Your task to perform on an android device: set the timer Image 0: 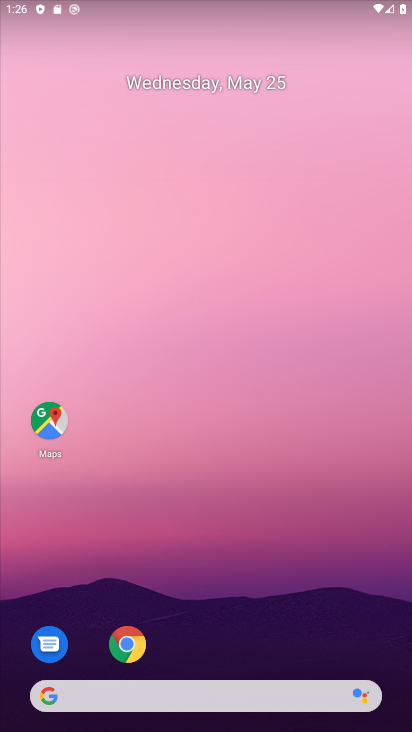
Step 0: drag from (180, 639) to (158, 193)
Your task to perform on an android device: set the timer Image 1: 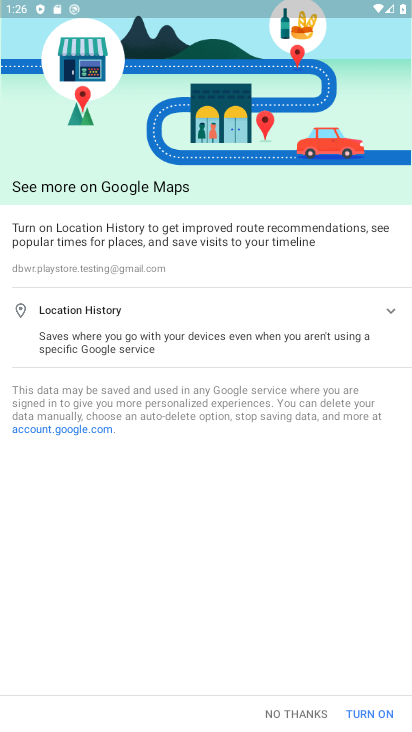
Step 1: click (299, 722)
Your task to perform on an android device: set the timer Image 2: 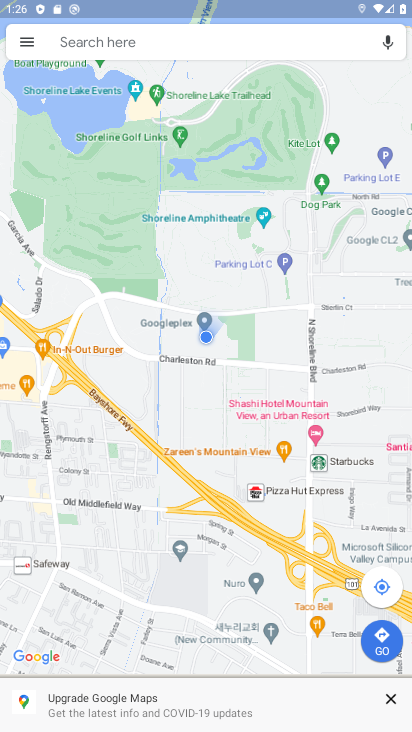
Step 2: press home button
Your task to perform on an android device: set the timer Image 3: 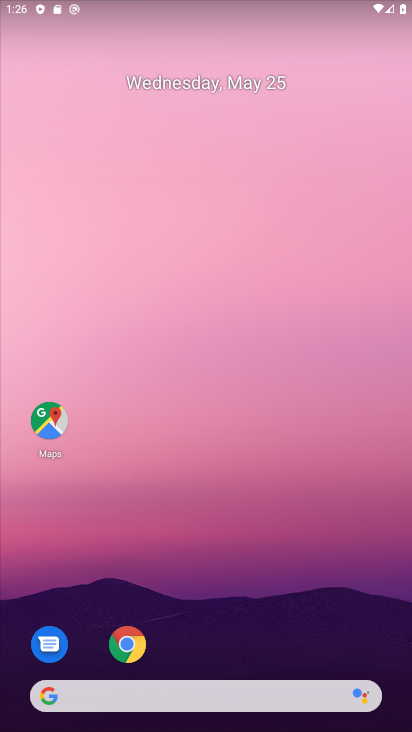
Step 3: drag from (257, 595) to (195, 123)
Your task to perform on an android device: set the timer Image 4: 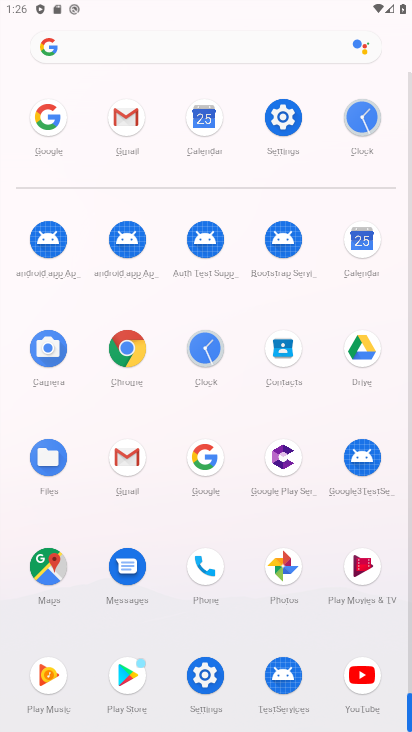
Step 4: click (203, 354)
Your task to perform on an android device: set the timer Image 5: 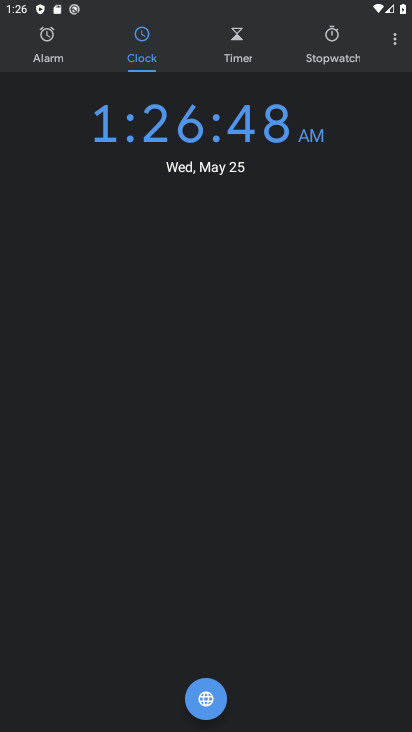
Step 5: click (224, 64)
Your task to perform on an android device: set the timer Image 6: 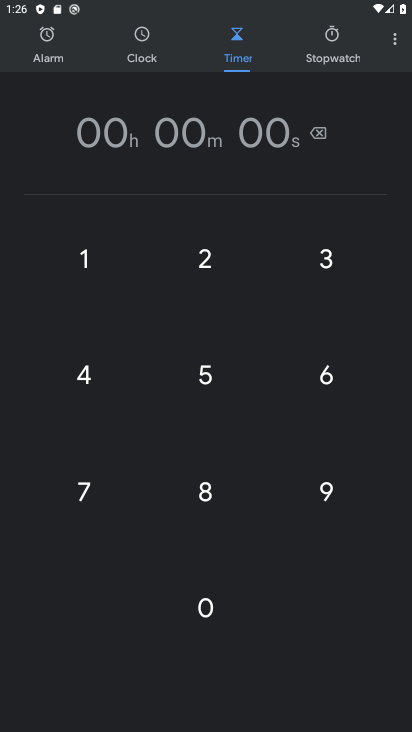
Step 6: click (198, 263)
Your task to perform on an android device: set the timer Image 7: 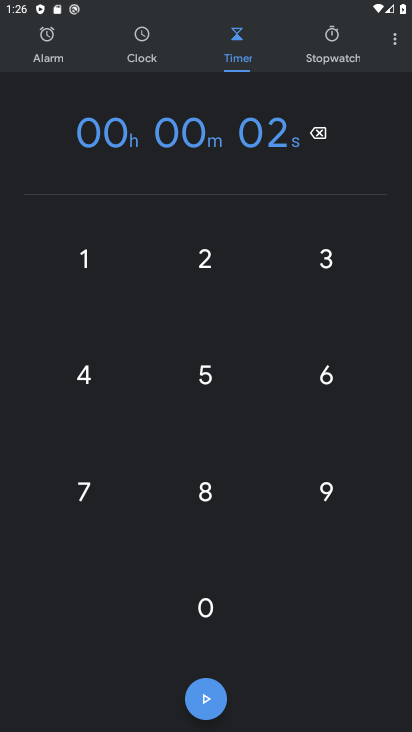
Step 7: click (212, 609)
Your task to perform on an android device: set the timer Image 8: 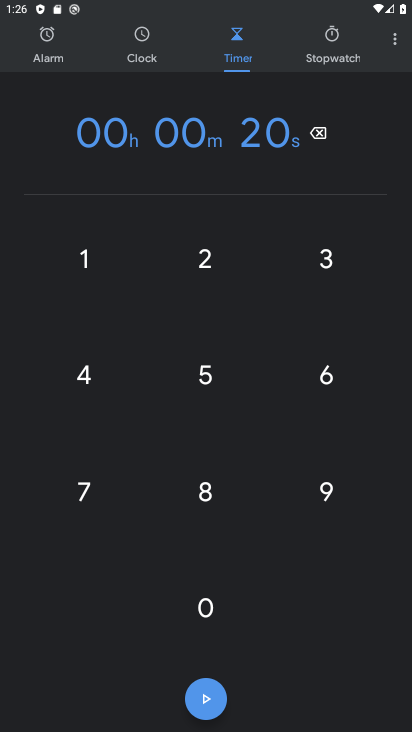
Step 8: click (203, 280)
Your task to perform on an android device: set the timer Image 9: 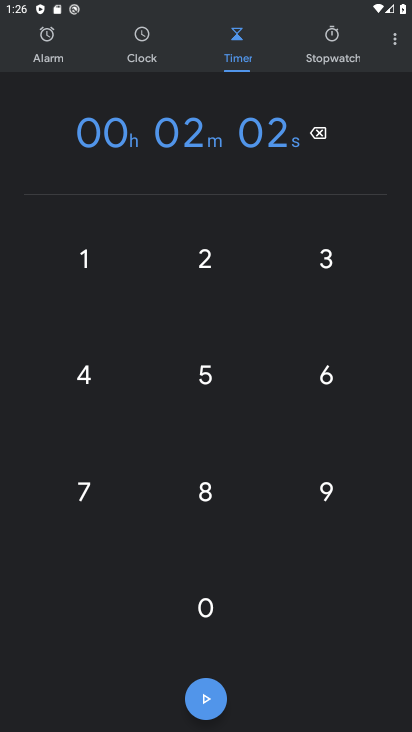
Step 9: click (207, 615)
Your task to perform on an android device: set the timer Image 10: 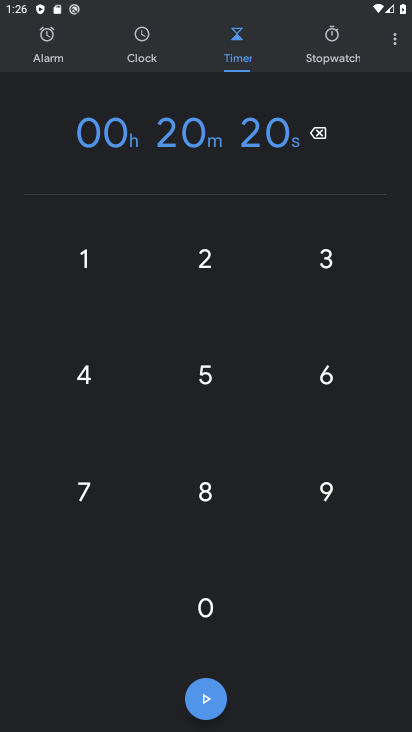
Step 10: click (203, 704)
Your task to perform on an android device: set the timer Image 11: 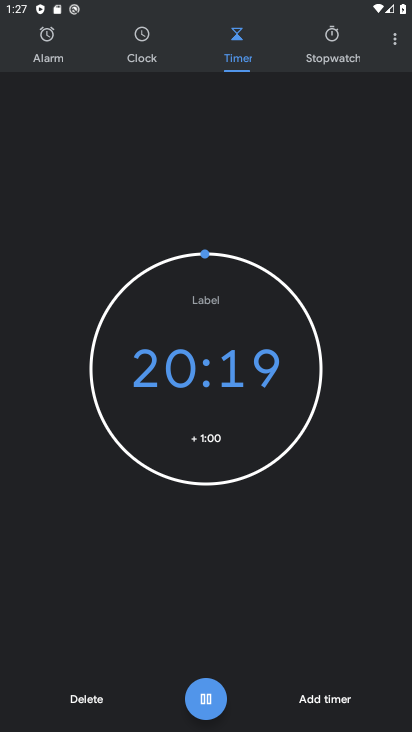
Step 11: click (311, 703)
Your task to perform on an android device: set the timer Image 12: 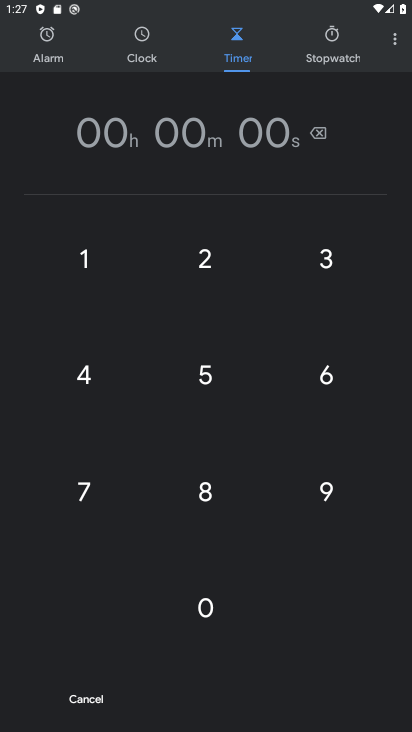
Step 12: task complete